Your task to perform on an android device: Add macbook pro to the cart on amazon Image 0: 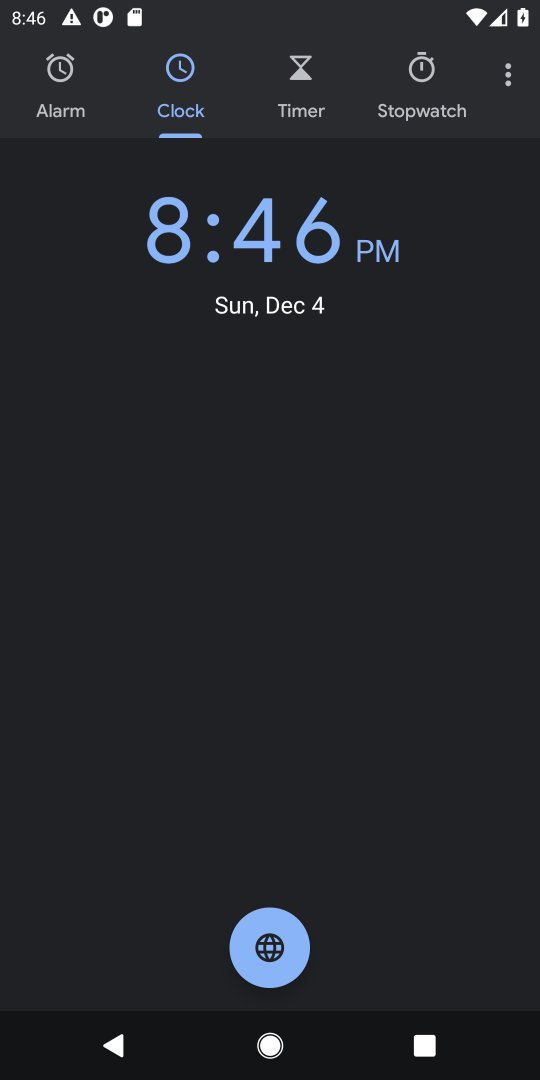
Step 0: press home button
Your task to perform on an android device: Add macbook pro to the cart on amazon Image 1: 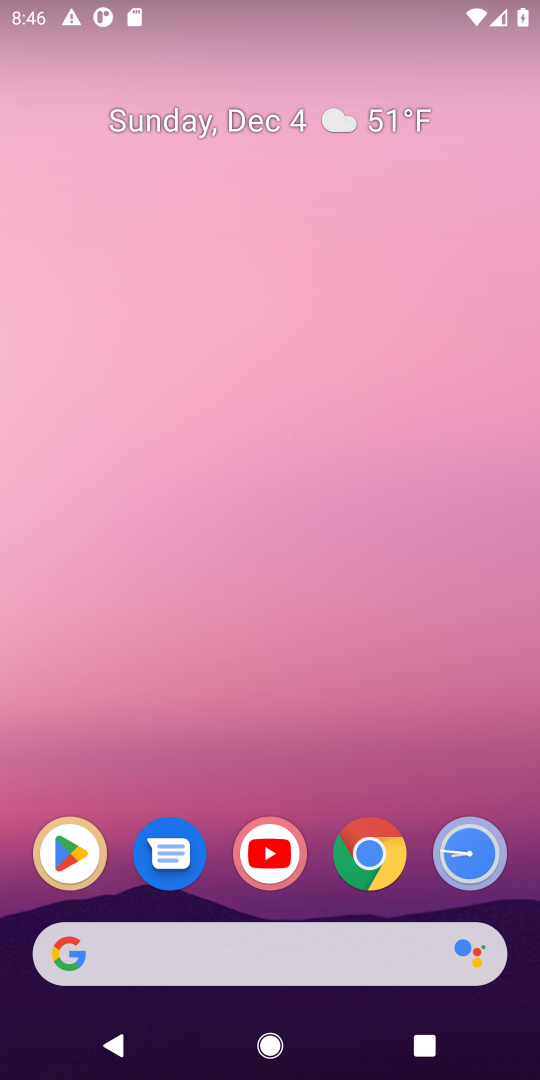
Step 1: click (364, 861)
Your task to perform on an android device: Add macbook pro to the cart on amazon Image 2: 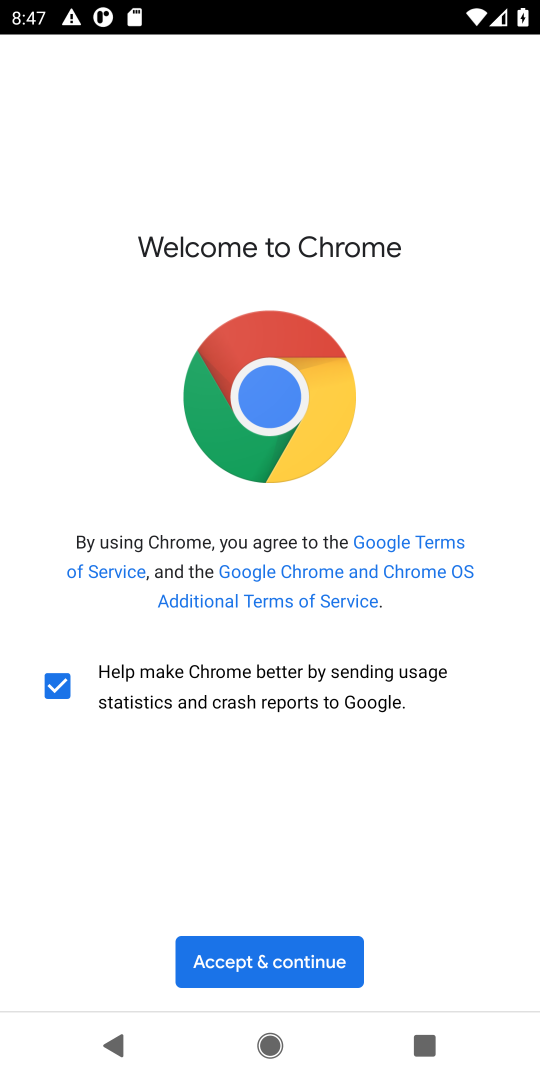
Step 2: task complete